Your task to perform on an android device: Open Google Image 0: 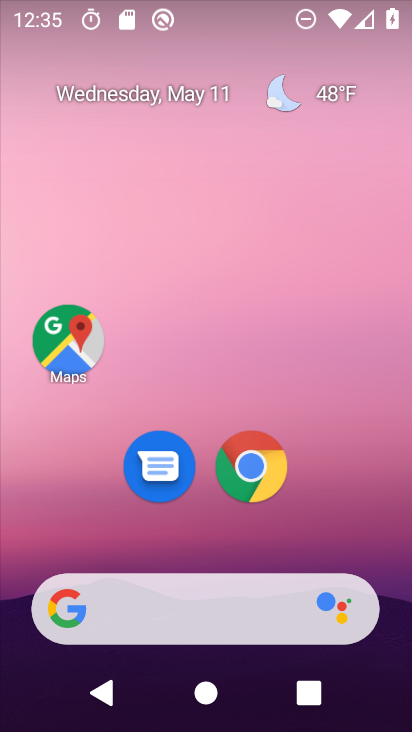
Step 0: drag from (211, 552) to (225, 57)
Your task to perform on an android device: Open Google Image 1: 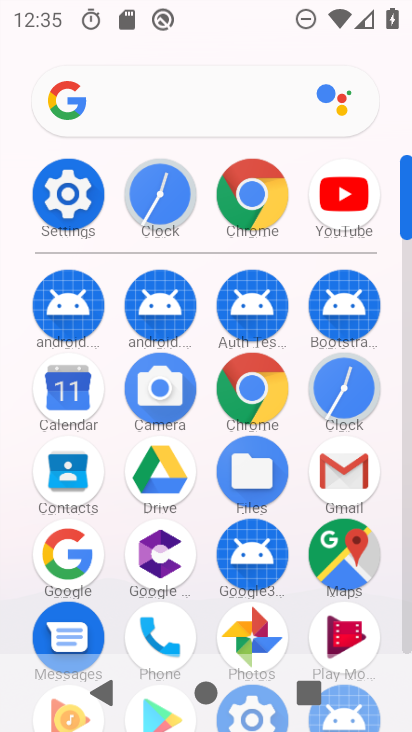
Step 1: click (65, 549)
Your task to perform on an android device: Open Google Image 2: 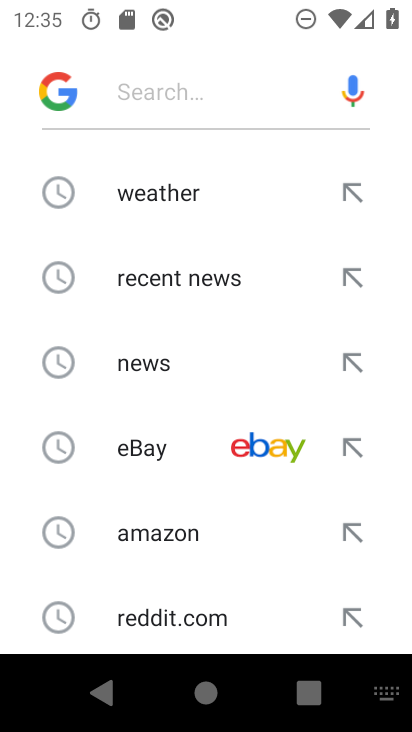
Step 2: press back button
Your task to perform on an android device: Open Google Image 3: 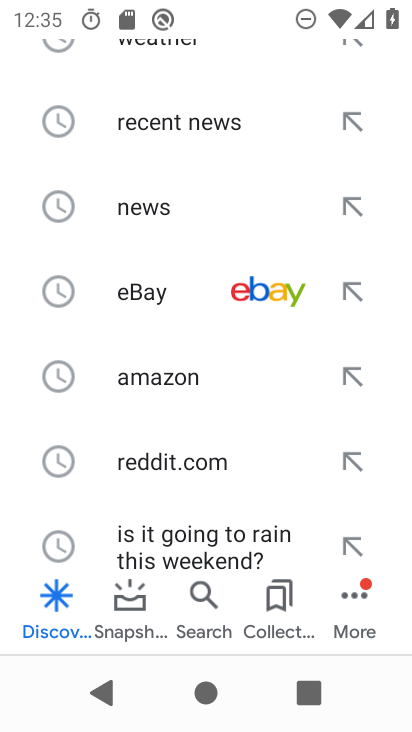
Step 3: click (199, 612)
Your task to perform on an android device: Open Google Image 4: 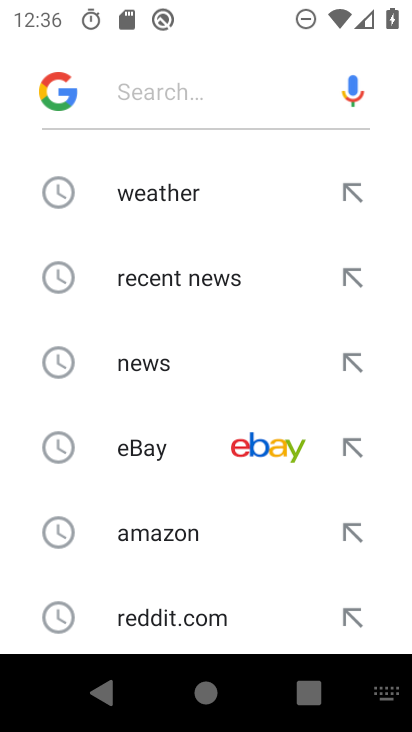
Step 4: press back button
Your task to perform on an android device: Open Google Image 5: 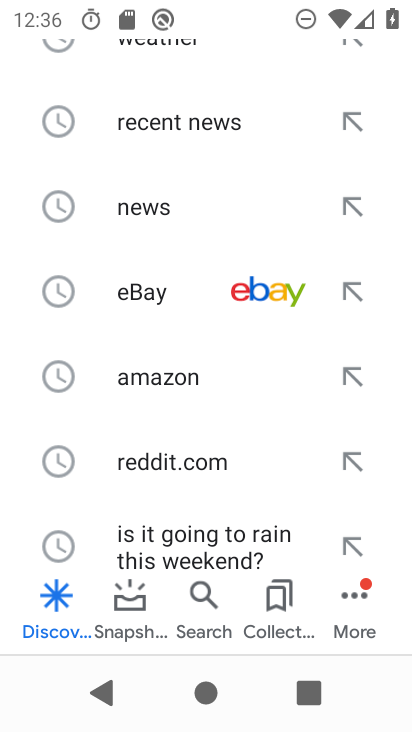
Step 5: click (64, 613)
Your task to perform on an android device: Open Google Image 6: 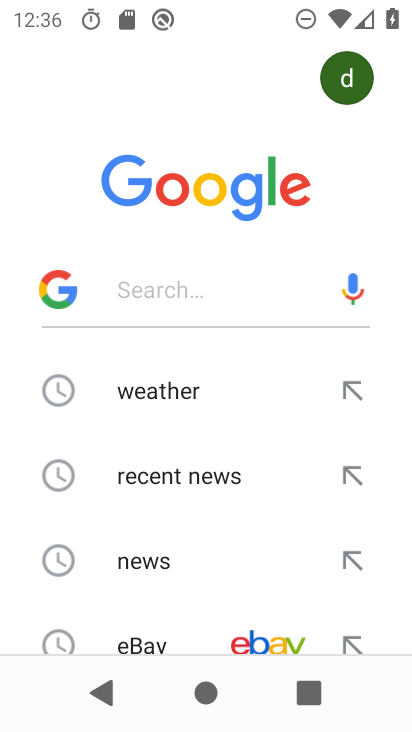
Step 6: task complete